Your task to perform on an android device: What's the weather? Image 0: 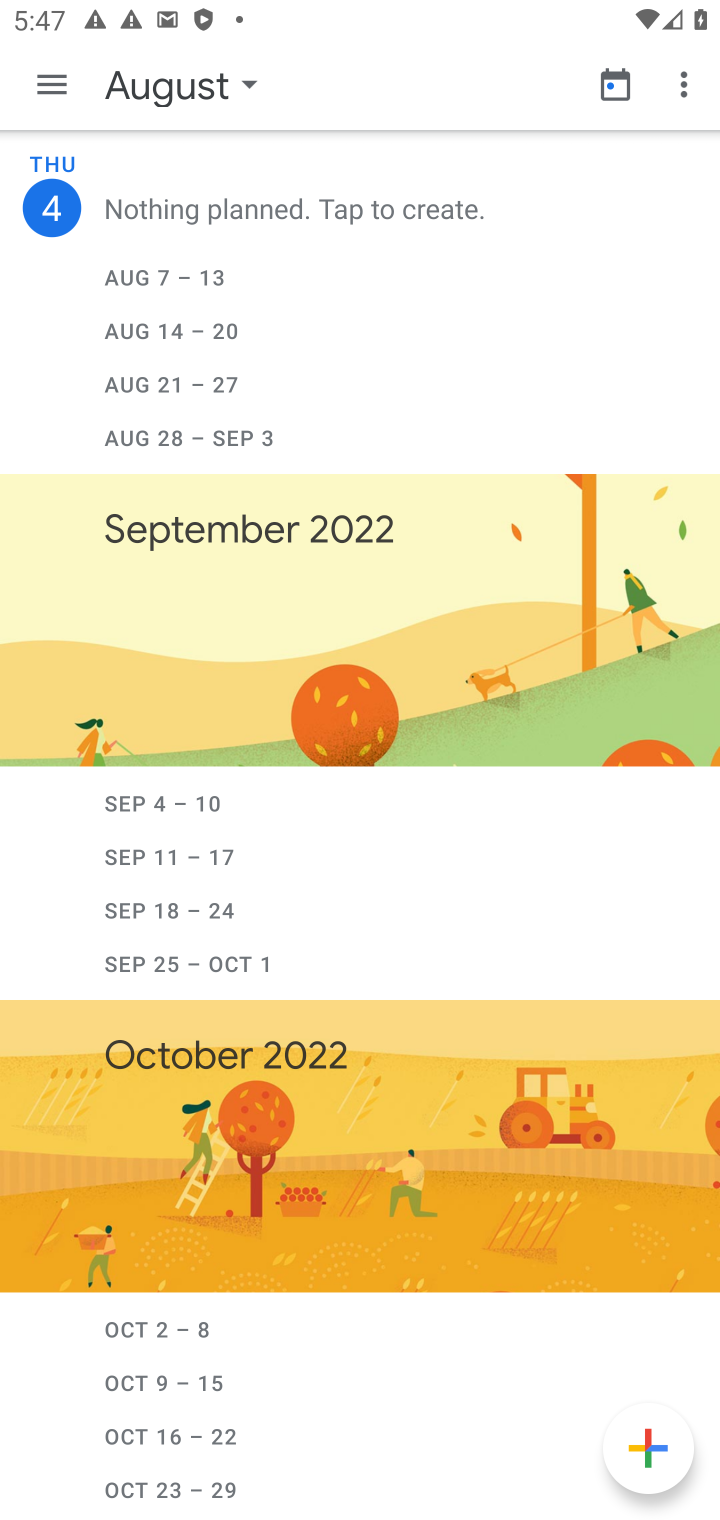
Step 0: press home button
Your task to perform on an android device: What's the weather? Image 1: 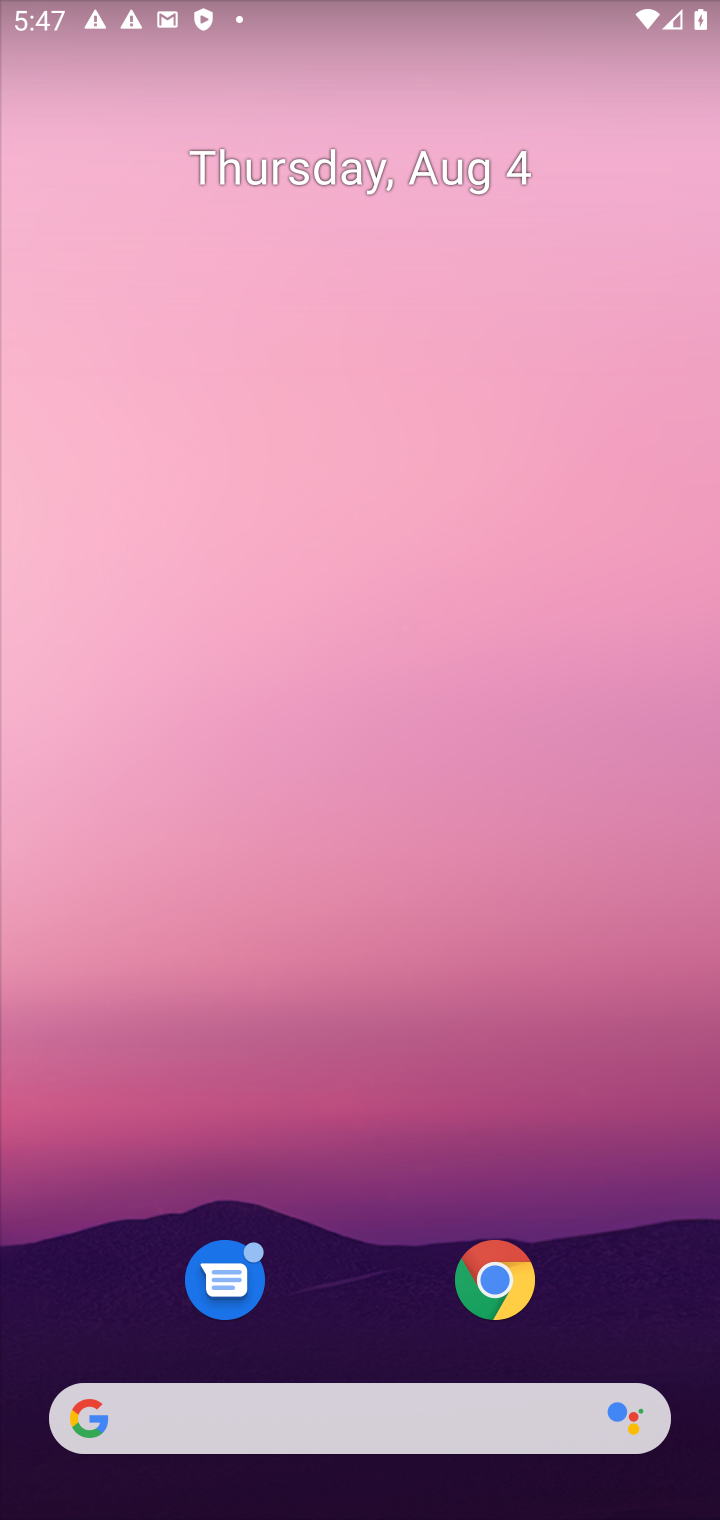
Step 1: click (321, 1392)
Your task to perform on an android device: What's the weather? Image 2: 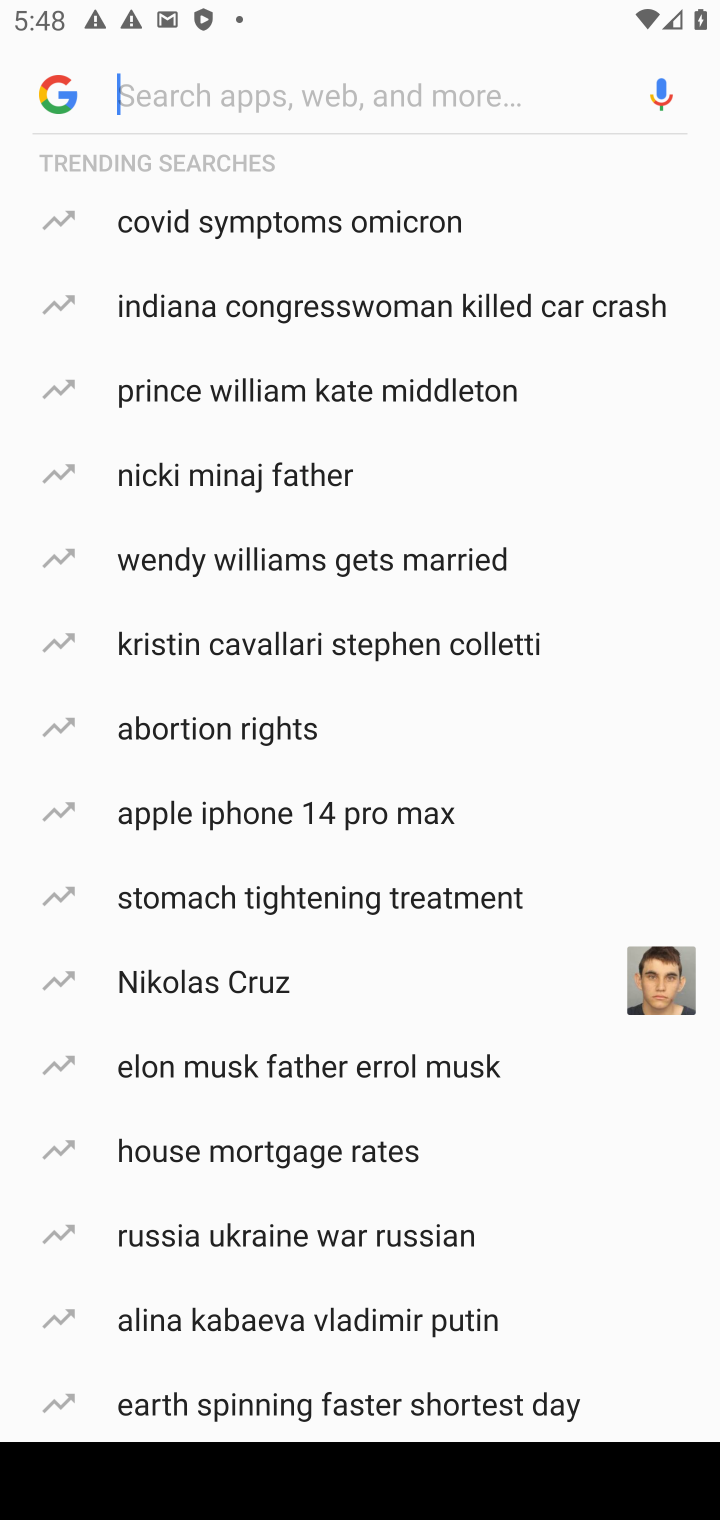
Step 2: type "wheather"
Your task to perform on an android device: What's the weather? Image 3: 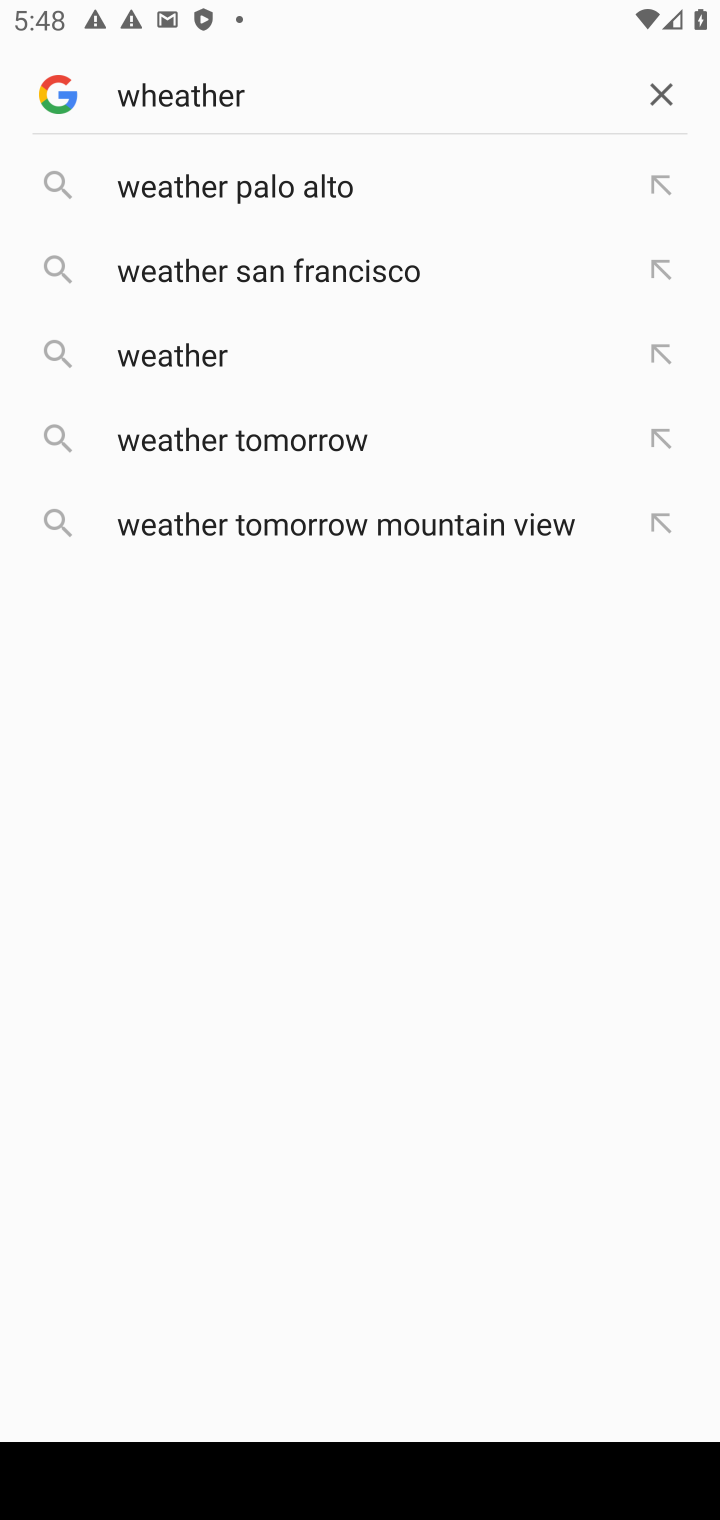
Step 3: click (140, 350)
Your task to perform on an android device: What's the weather? Image 4: 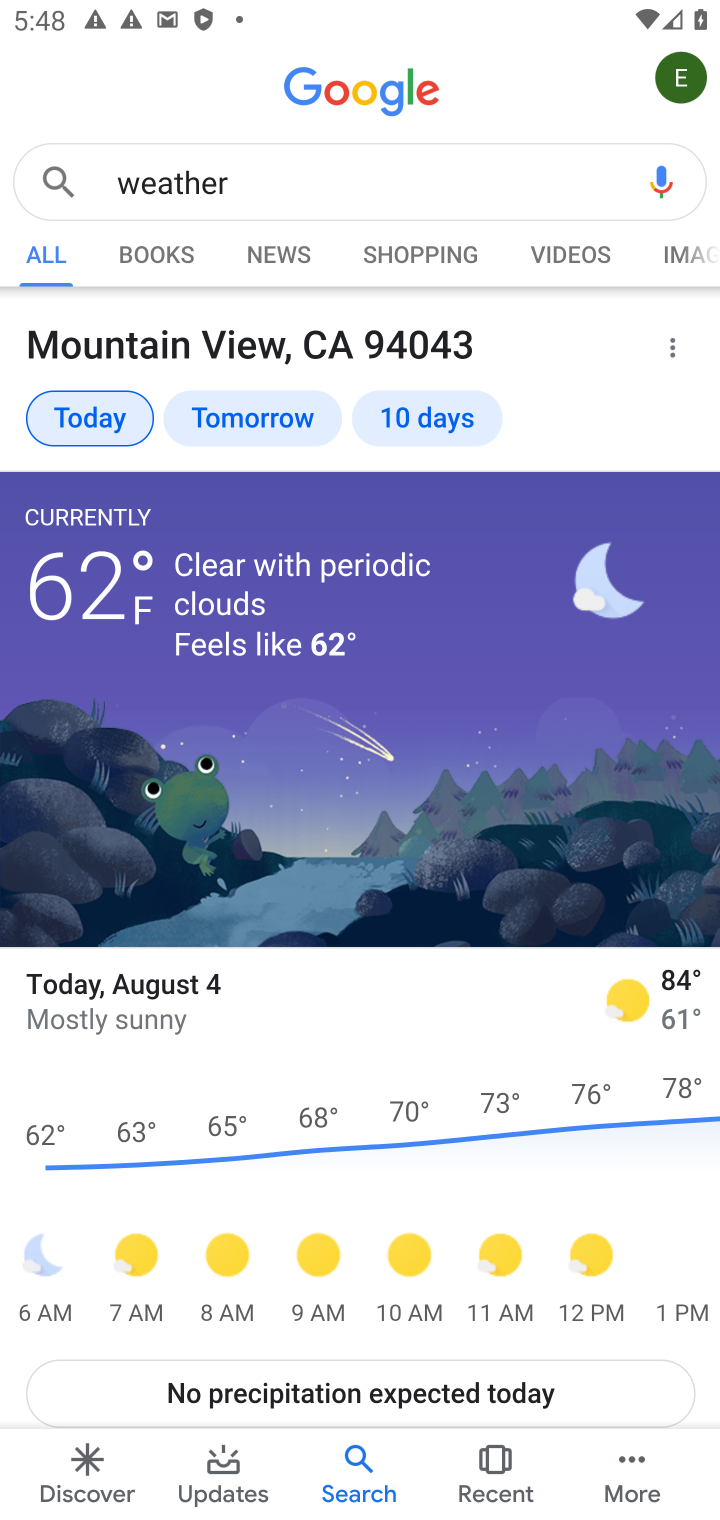
Step 4: task complete